Your task to perform on an android device: turn on improve location accuracy Image 0: 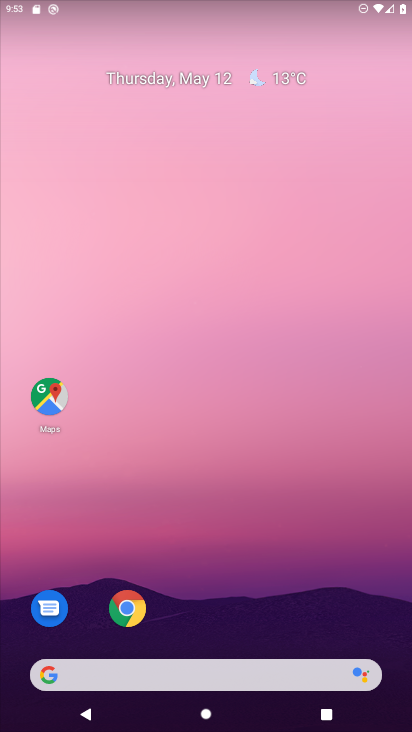
Step 0: drag from (205, 601) to (235, 213)
Your task to perform on an android device: turn on improve location accuracy Image 1: 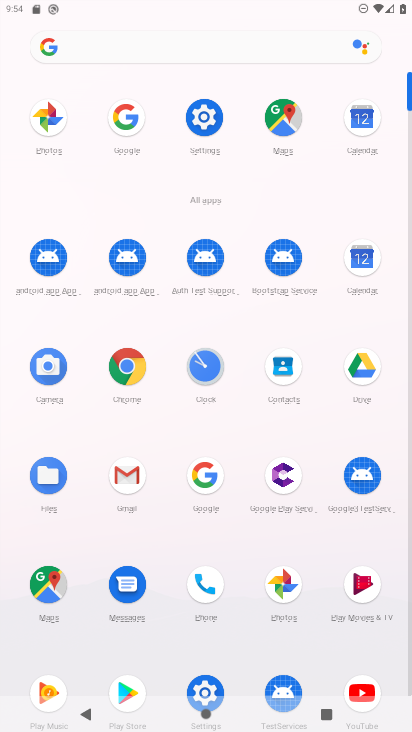
Step 1: click (204, 119)
Your task to perform on an android device: turn on improve location accuracy Image 2: 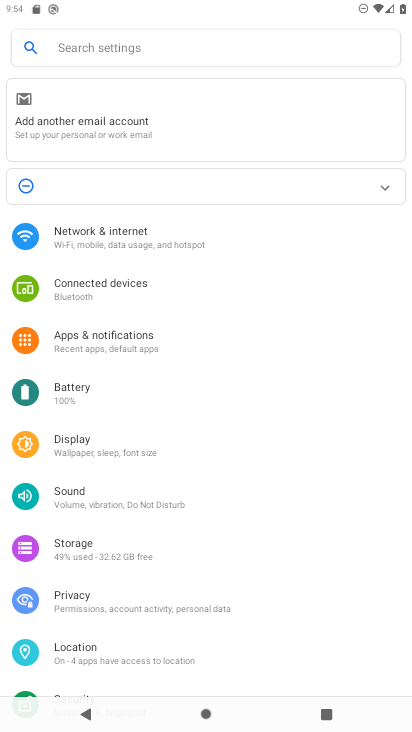
Step 2: click (72, 656)
Your task to perform on an android device: turn on improve location accuracy Image 3: 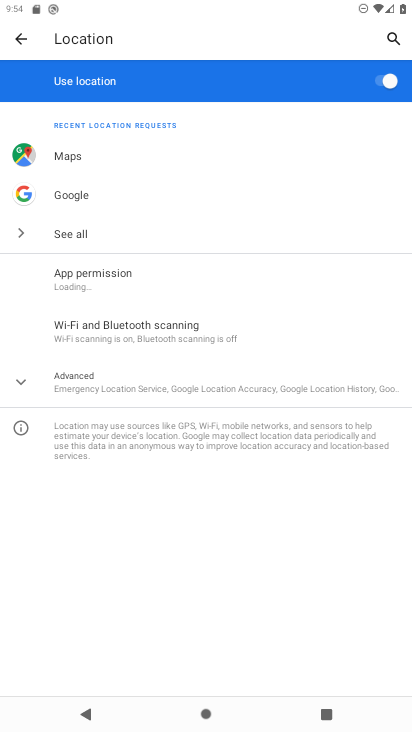
Step 3: click (70, 370)
Your task to perform on an android device: turn on improve location accuracy Image 4: 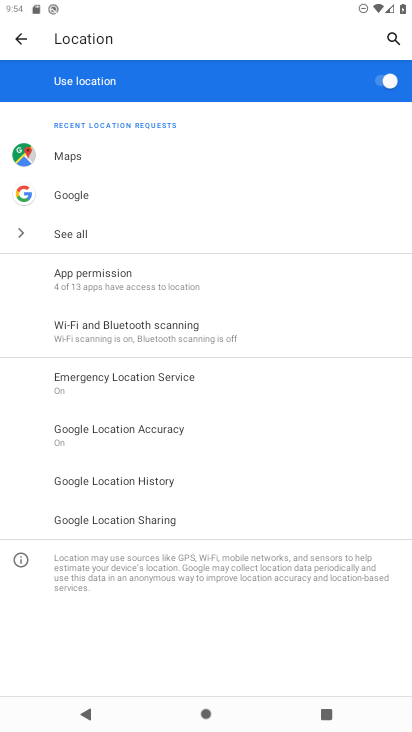
Step 4: drag from (267, 582) to (285, 392)
Your task to perform on an android device: turn on improve location accuracy Image 5: 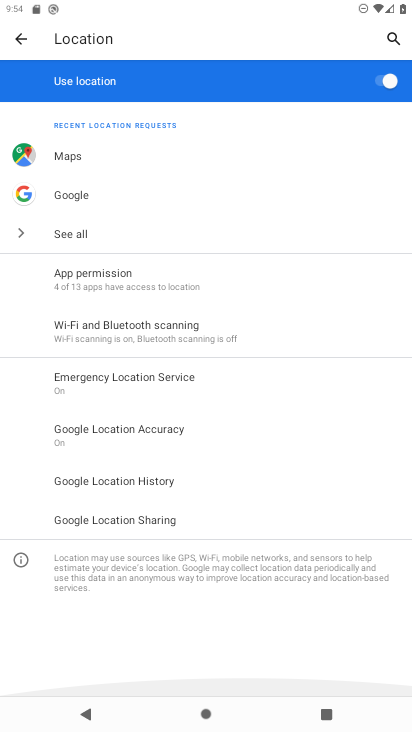
Step 5: click (119, 422)
Your task to perform on an android device: turn on improve location accuracy Image 6: 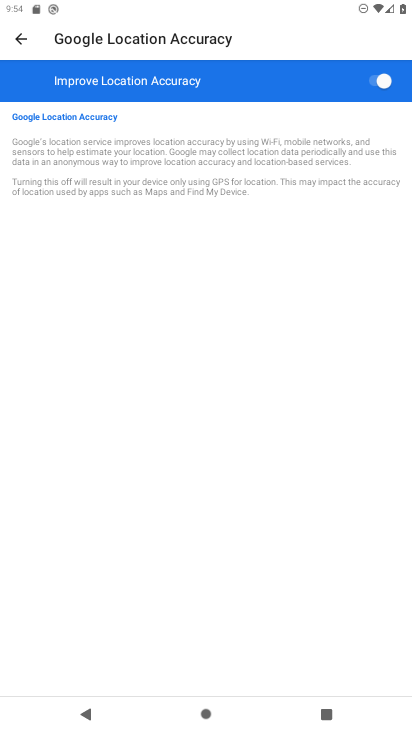
Step 6: task complete